Your task to perform on an android device: Open Youtube and go to the subscriptions tab Image 0: 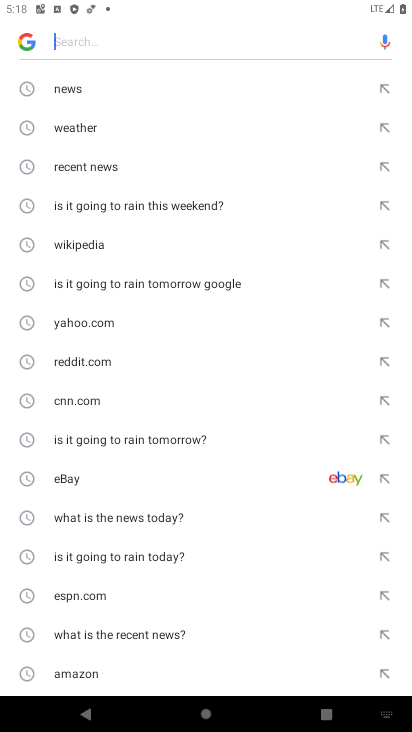
Step 0: press home button
Your task to perform on an android device: Open Youtube and go to the subscriptions tab Image 1: 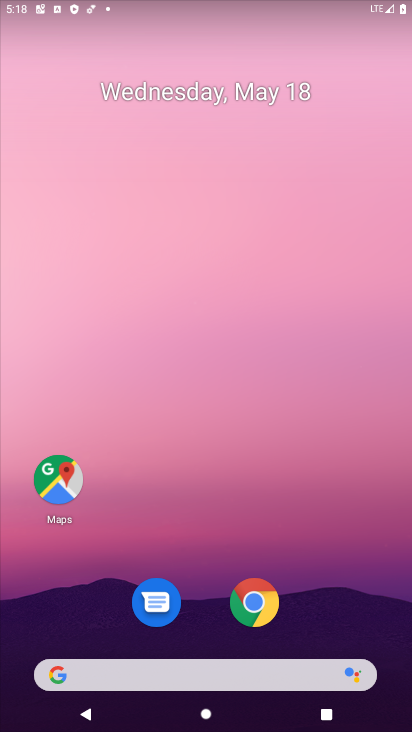
Step 1: drag from (312, 675) to (267, 11)
Your task to perform on an android device: Open Youtube and go to the subscriptions tab Image 2: 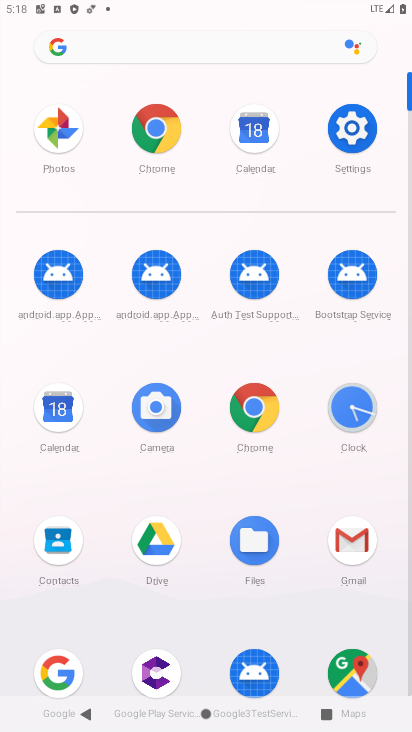
Step 2: drag from (285, 640) to (285, 179)
Your task to perform on an android device: Open Youtube and go to the subscriptions tab Image 3: 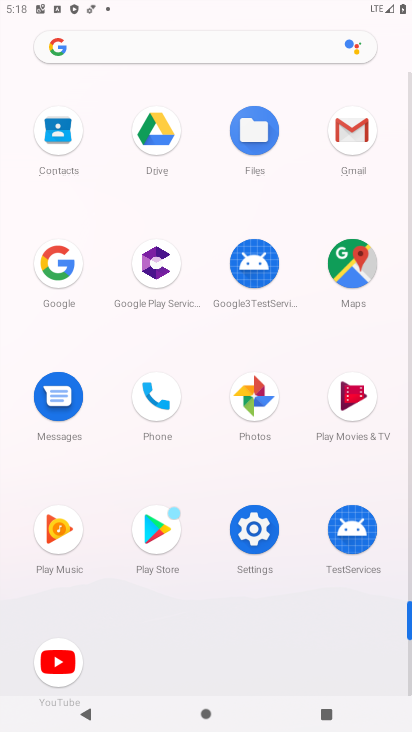
Step 3: click (56, 665)
Your task to perform on an android device: Open Youtube and go to the subscriptions tab Image 4: 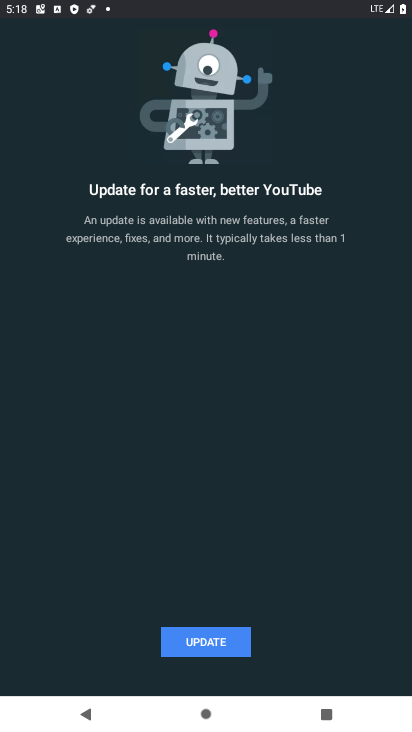
Step 4: click (225, 650)
Your task to perform on an android device: Open Youtube and go to the subscriptions tab Image 5: 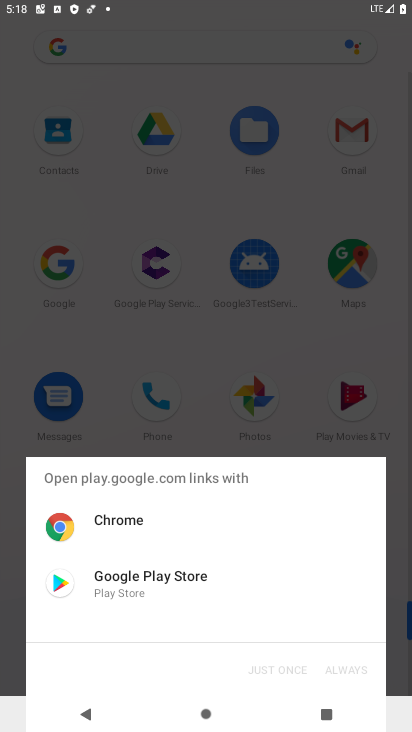
Step 5: click (191, 595)
Your task to perform on an android device: Open Youtube and go to the subscriptions tab Image 6: 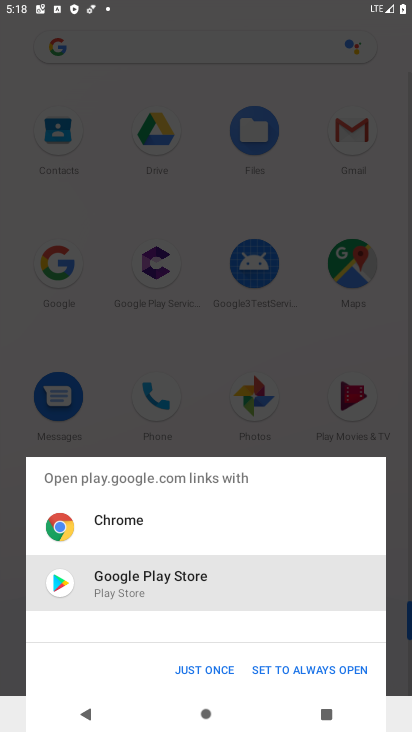
Step 6: click (218, 667)
Your task to perform on an android device: Open Youtube and go to the subscriptions tab Image 7: 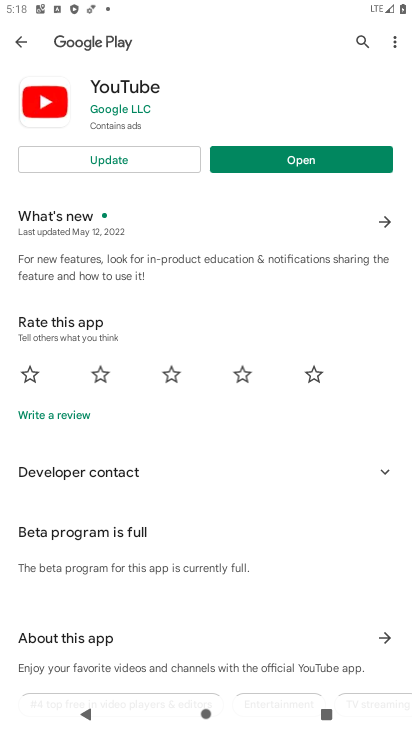
Step 7: click (165, 166)
Your task to perform on an android device: Open Youtube and go to the subscriptions tab Image 8: 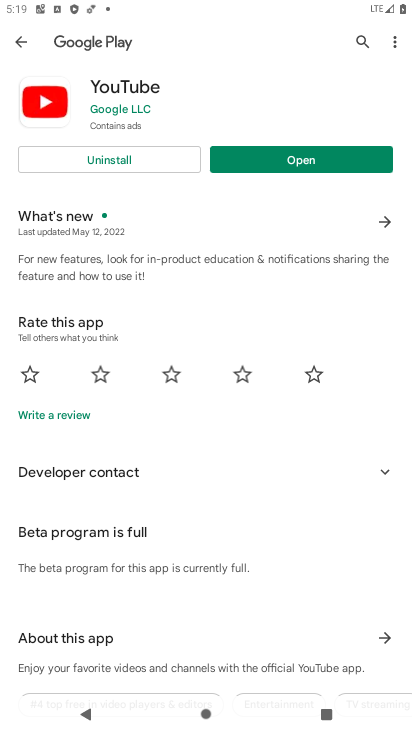
Step 8: click (279, 163)
Your task to perform on an android device: Open Youtube and go to the subscriptions tab Image 9: 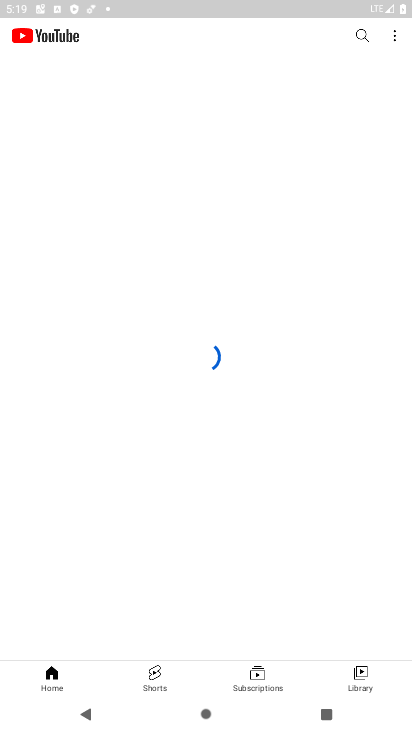
Step 9: click (253, 679)
Your task to perform on an android device: Open Youtube and go to the subscriptions tab Image 10: 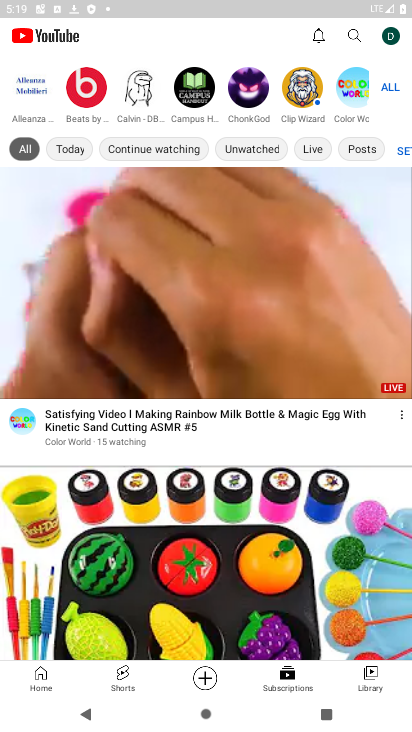
Step 10: task complete